Your task to perform on an android device: open app "Chime – Mobile Banking" Image 0: 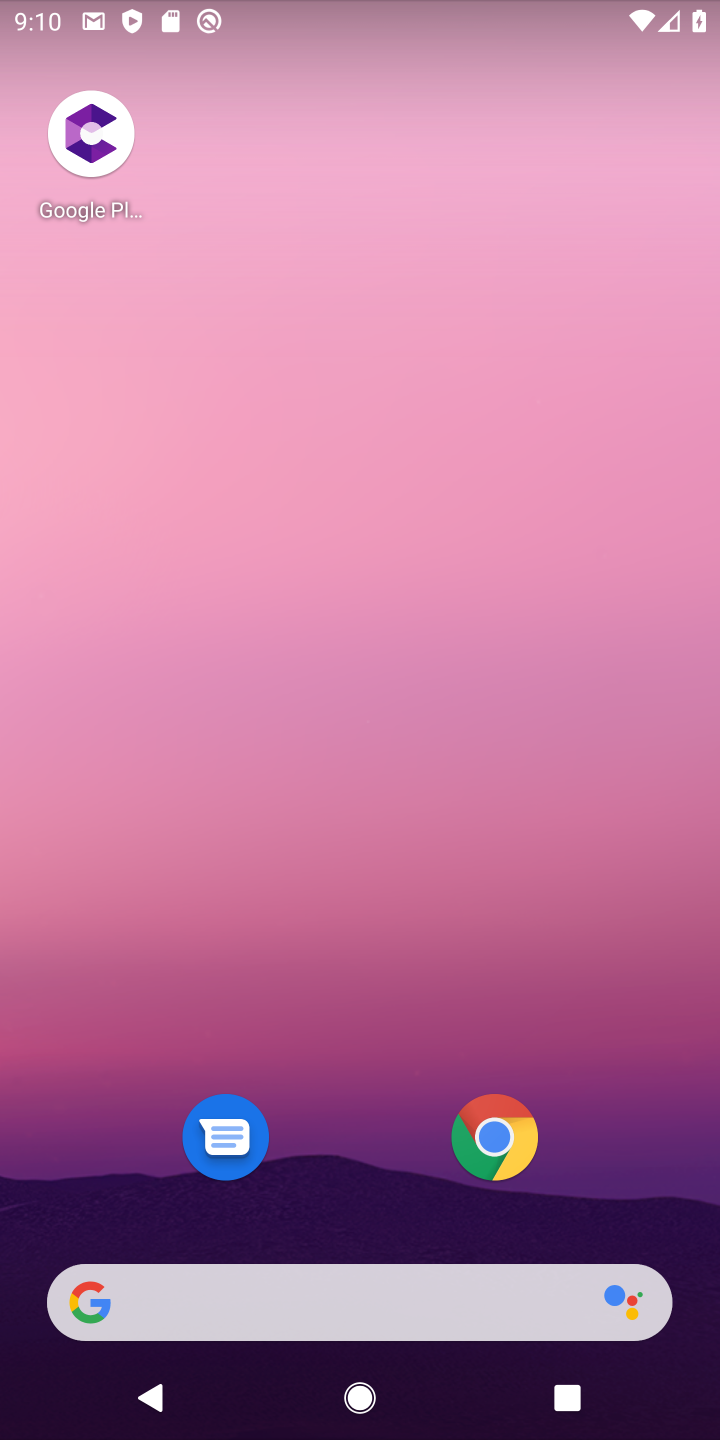
Step 0: drag from (385, 985) to (393, 434)
Your task to perform on an android device: open app "Chime – Mobile Banking" Image 1: 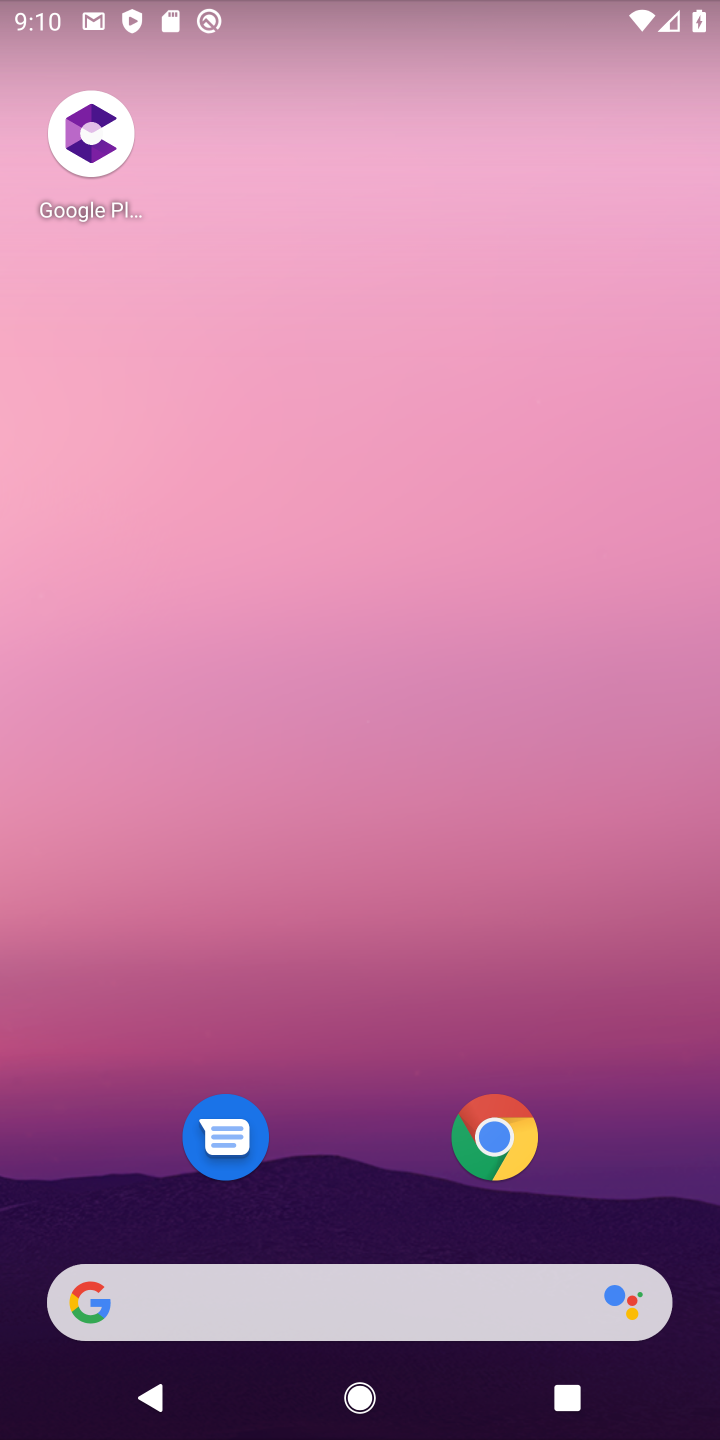
Step 1: drag from (341, 1165) to (417, 208)
Your task to perform on an android device: open app "Chime – Mobile Banking" Image 2: 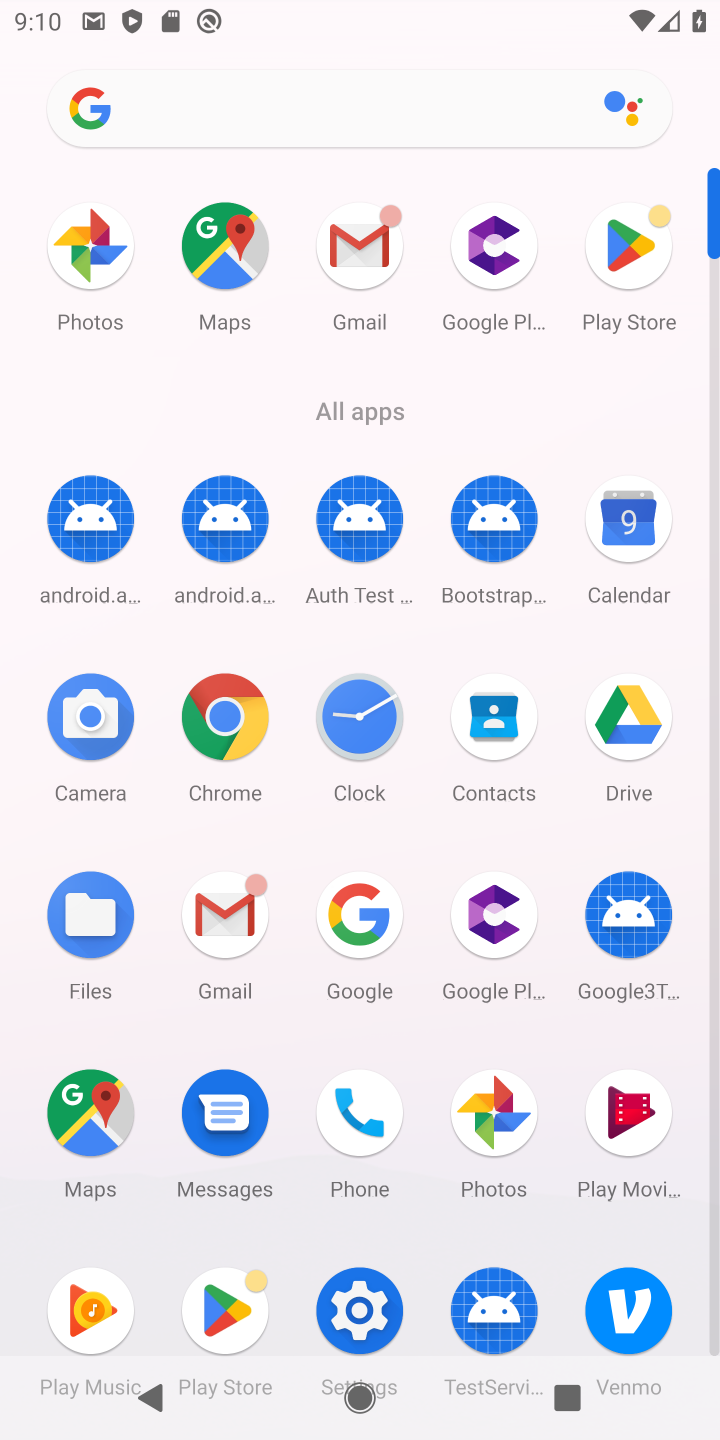
Step 2: click (607, 235)
Your task to perform on an android device: open app "Chime – Mobile Banking" Image 3: 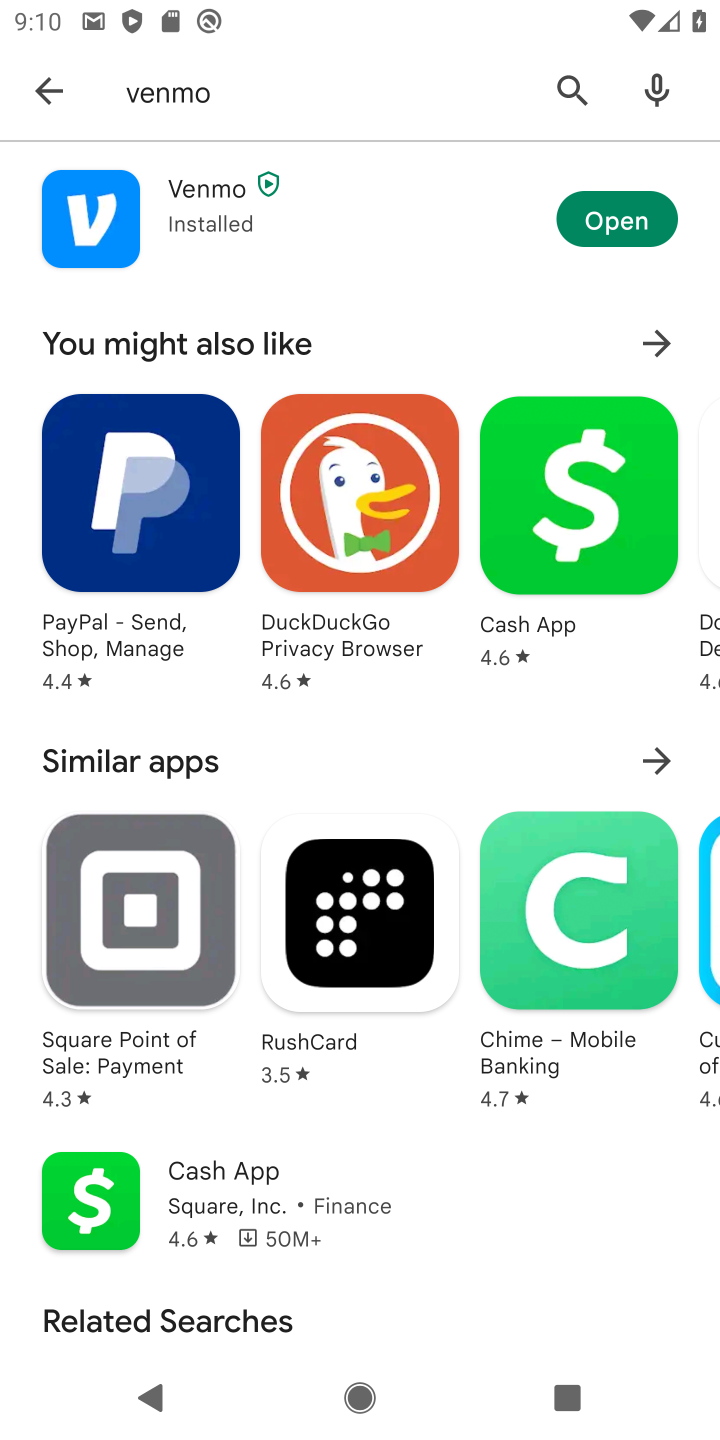
Step 3: click (574, 76)
Your task to perform on an android device: open app "Chime – Mobile Banking" Image 4: 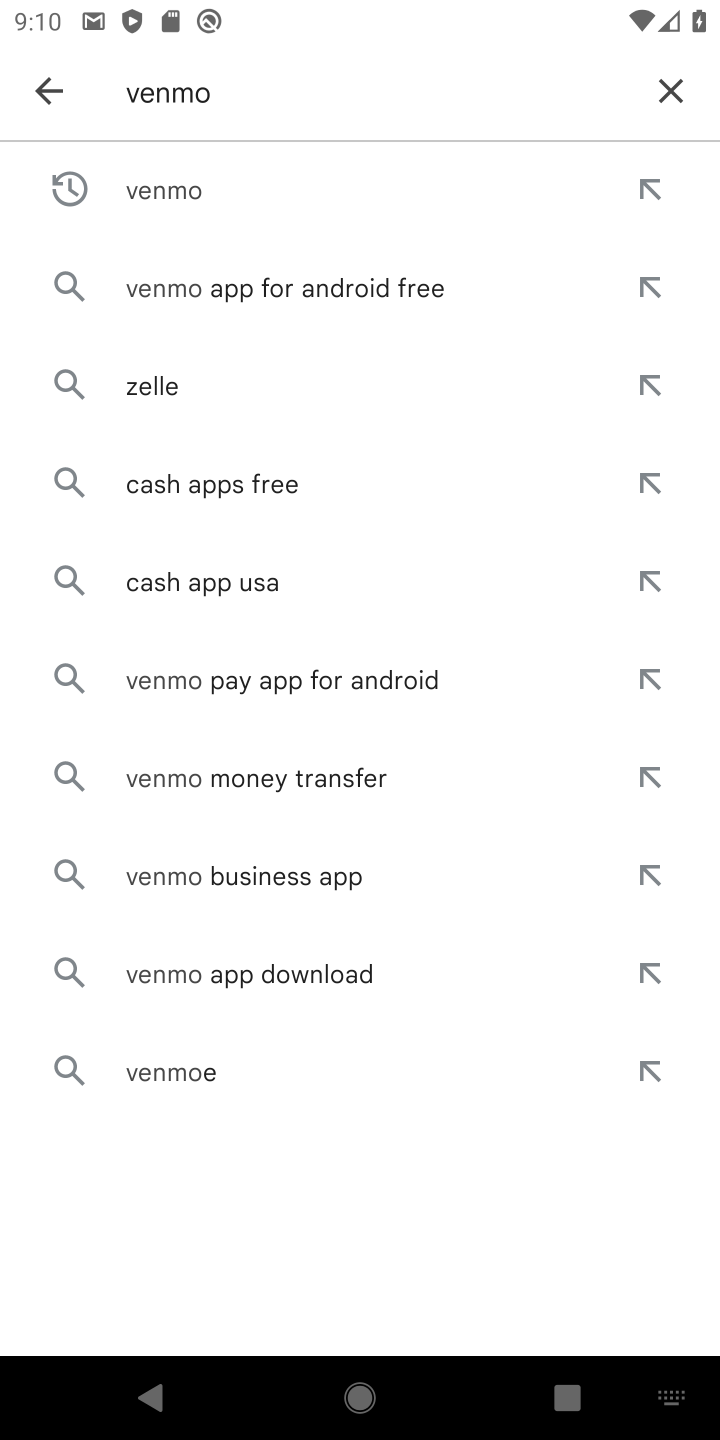
Step 4: click (679, 102)
Your task to perform on an android device: open app "Chime – Mobile Banking" Image 5: 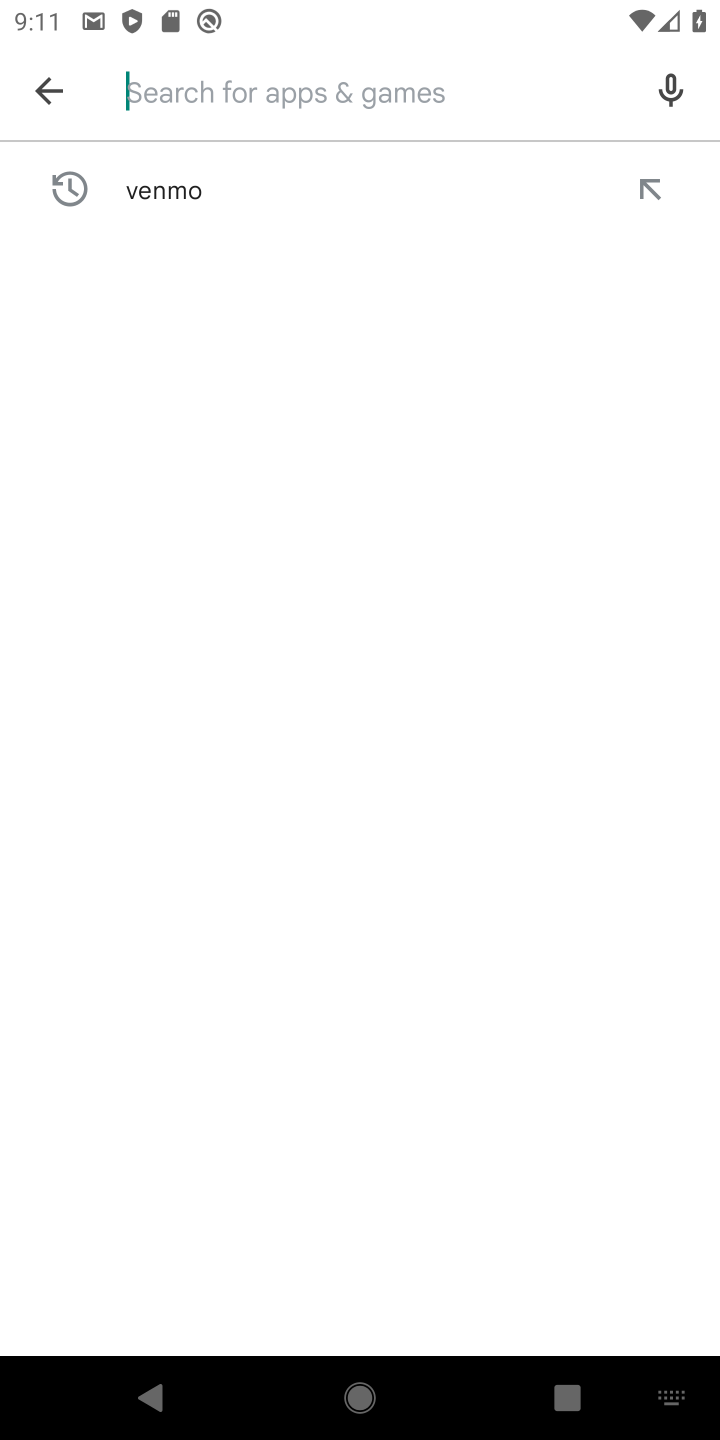
Step 5: type "Chime – Mobile Banking"
Your task to perform on an android device: open app "Chime – Mobile Banking" Image 6: 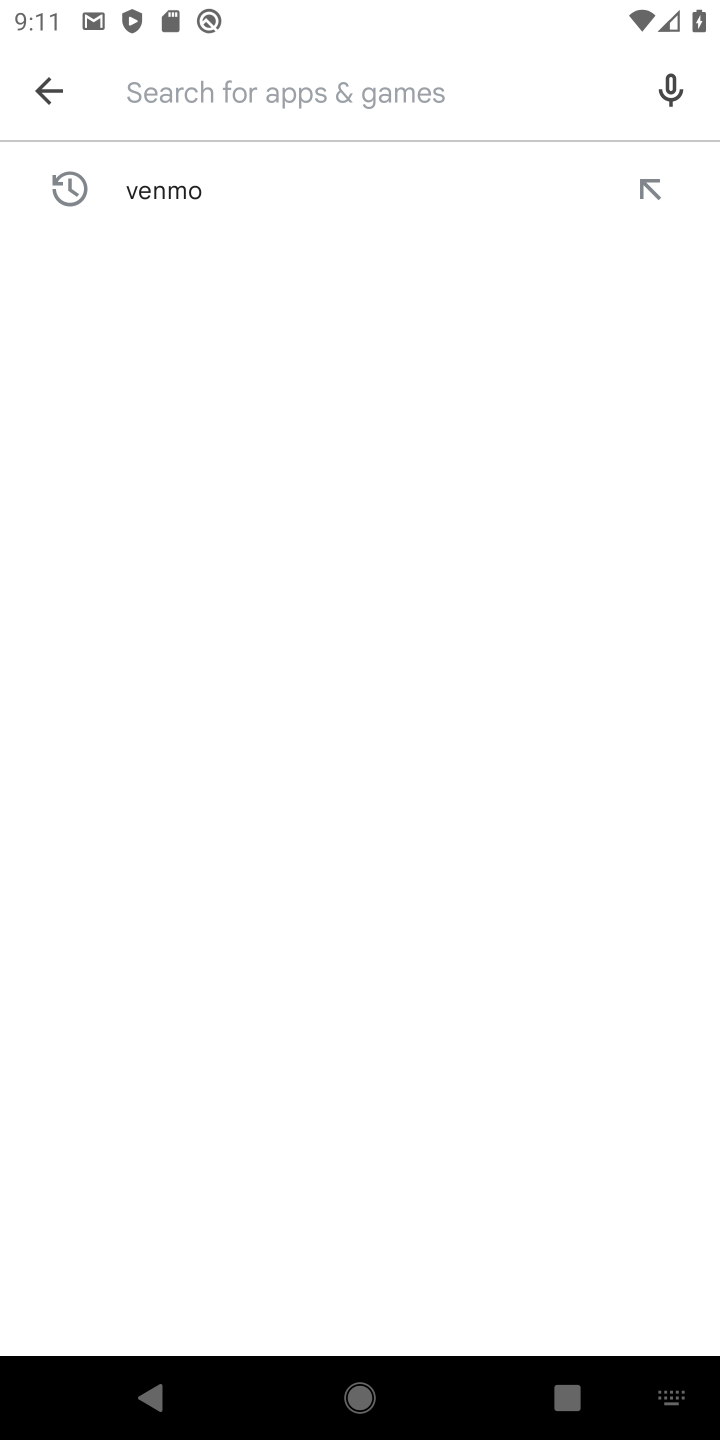
Step 6: type ""
Your task to perform on an android device: open app "Chime – Mobile Banking" Image 7: 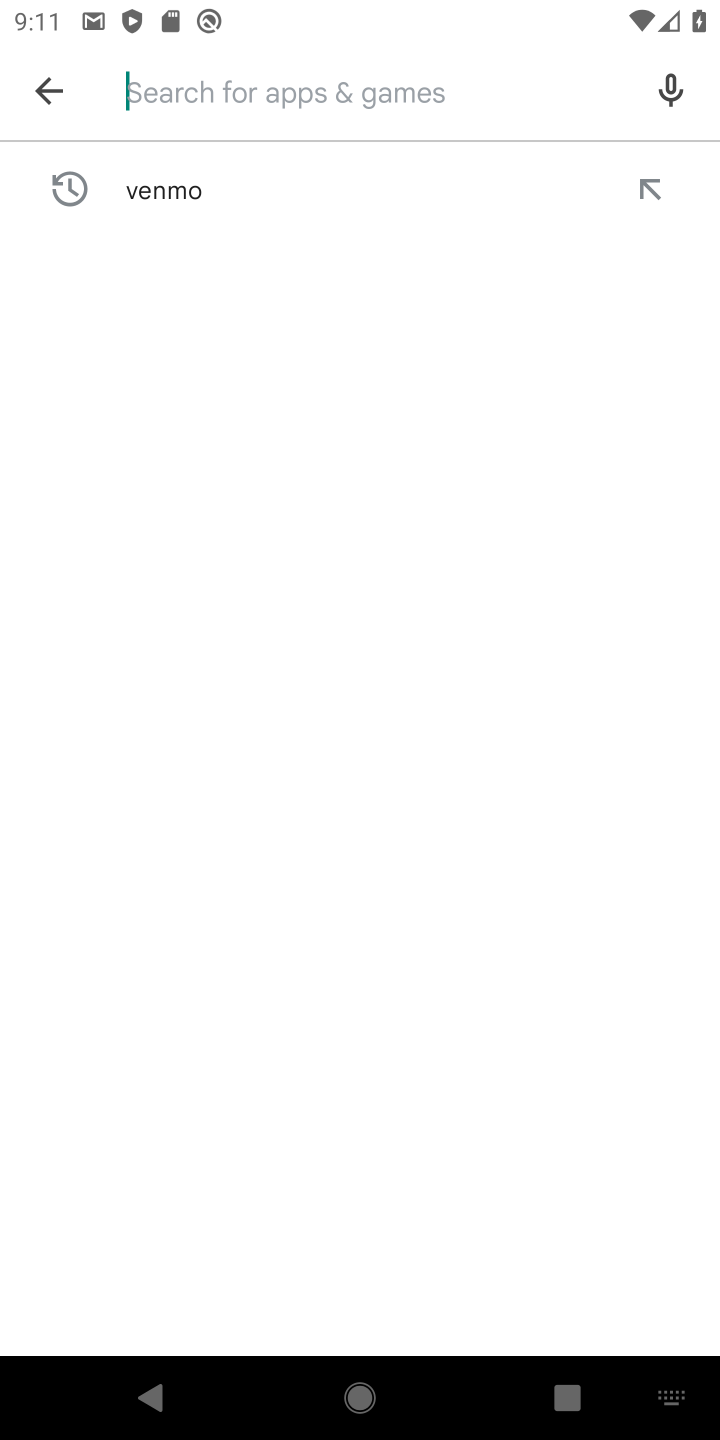
Step 7: type "Chime – Mobile Banking"
Your task to perform on an android device: open app "Chime – Mobile Banking" Image 8: 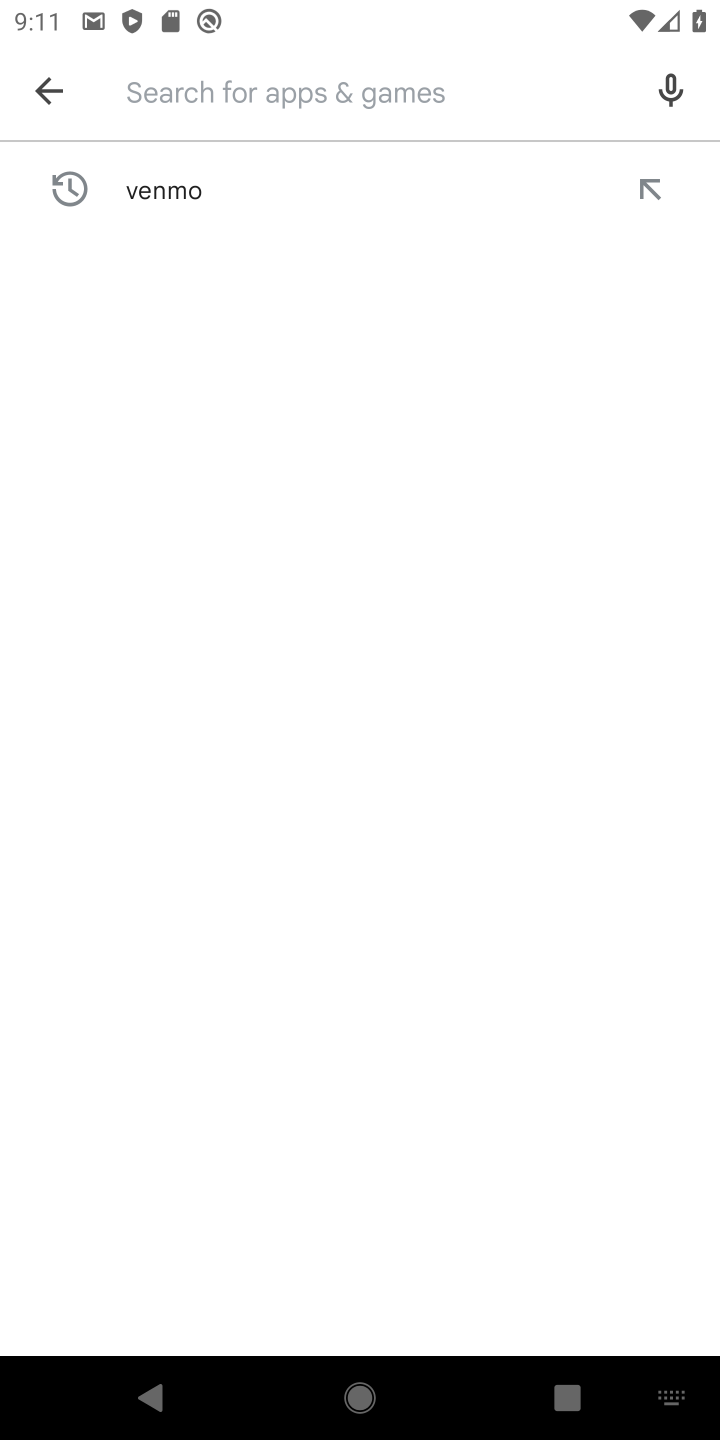
Step 8: type ""
Your task to perform on an android device: open app "Chime – Mobile Banking" Image 9: 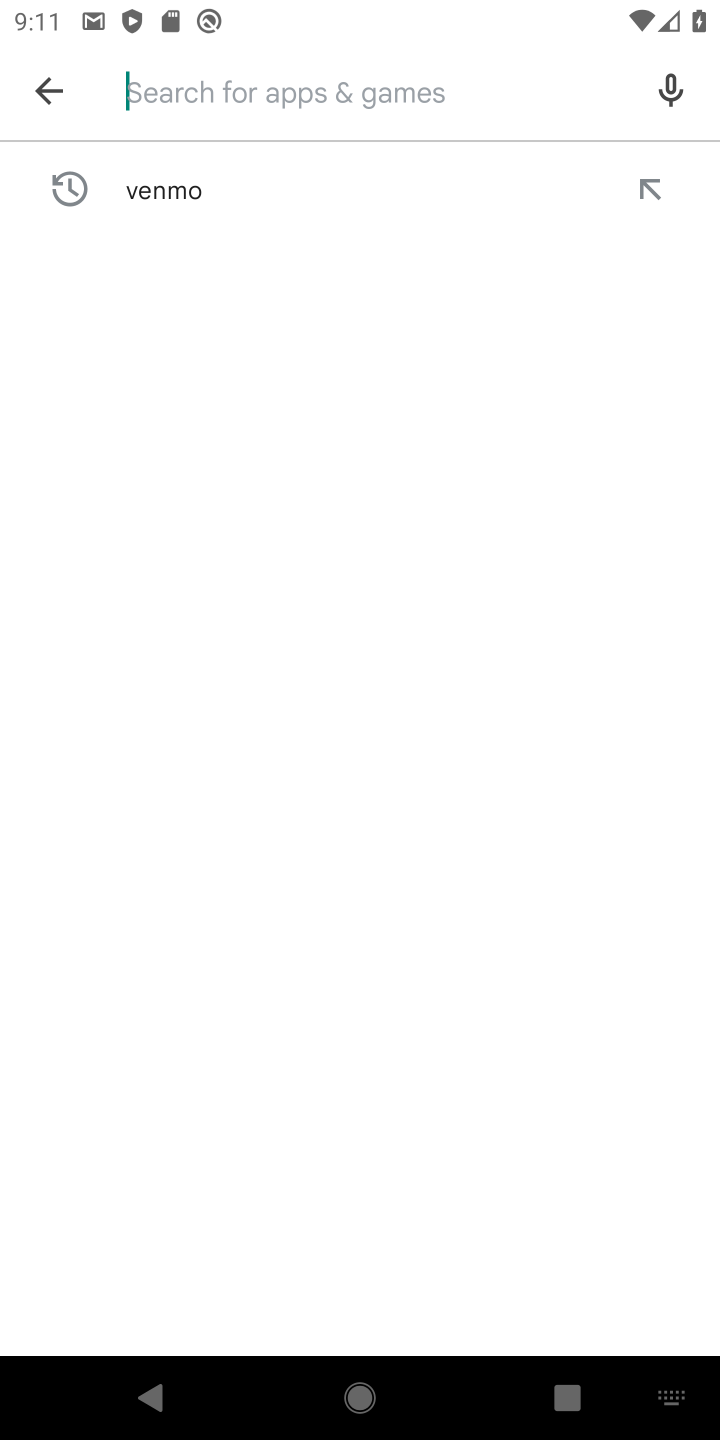
Step 9: press home button
Your task to perform on an android device: open app "Chime – Mobile Banking" Image 10: 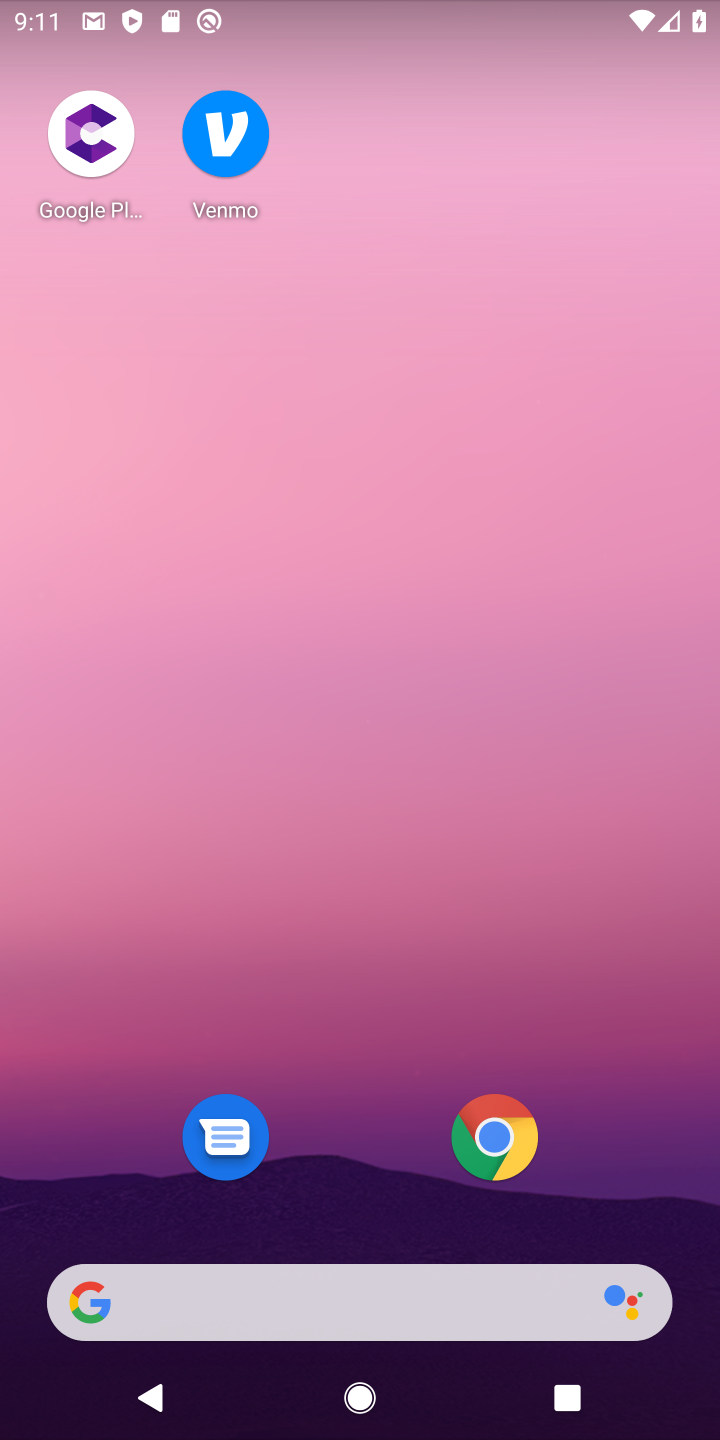
Step 10: drag from (400, 875) to (408, 193)
Your task to perform on an android device: open app "Chime – Mobile Banking" Image 11: 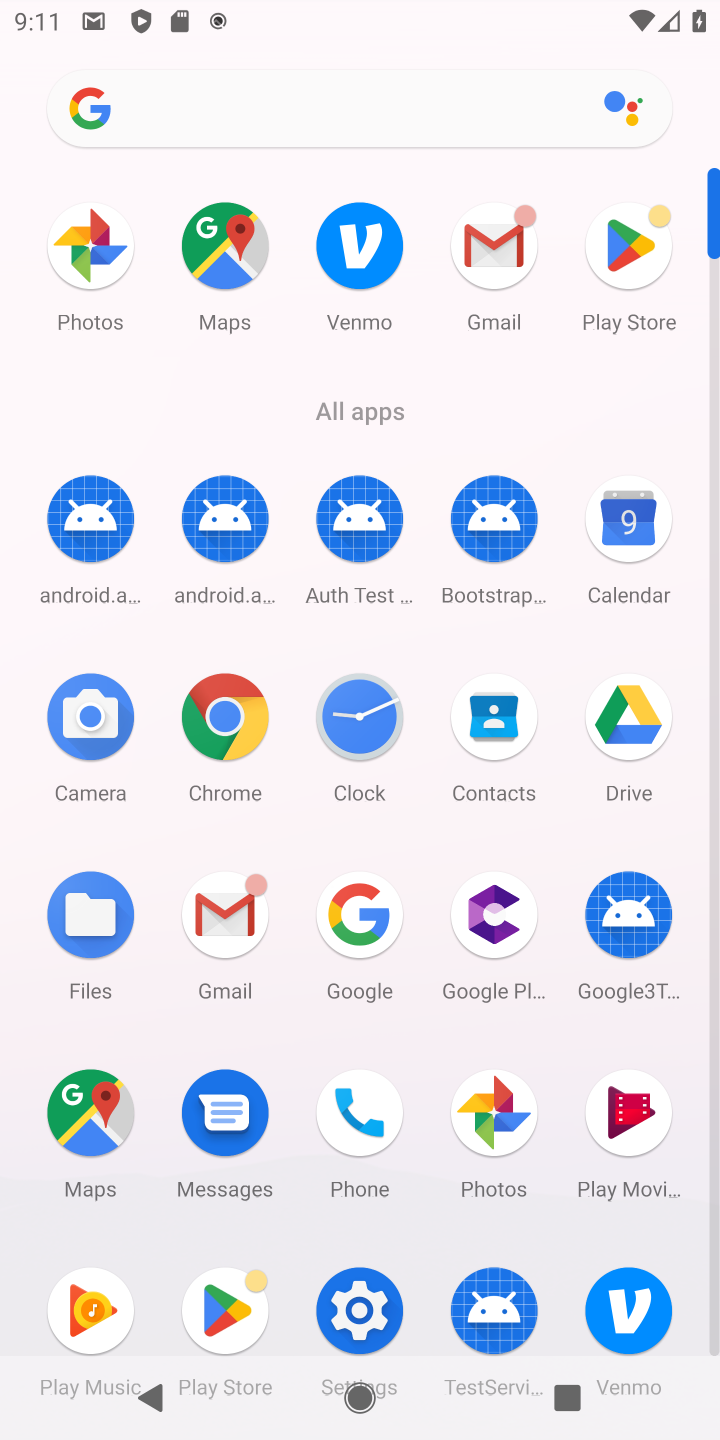
Step 11: click (633, 263)
Your task to perform on an android device: open app "Chime – Mobile Banking" Image 12: 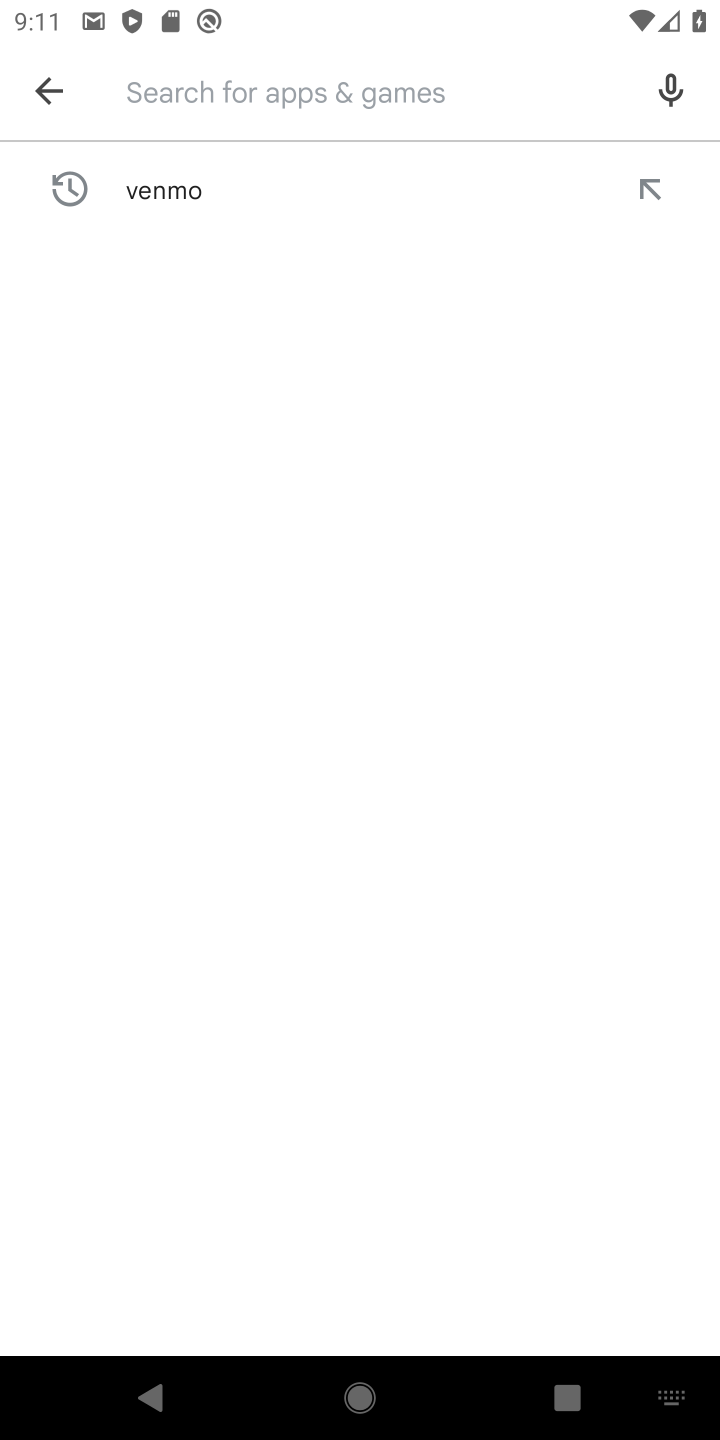
Step 12: click (365, 106)
Your task to perform on an android device: open app "Chime – Mobile Banking" Image 13: 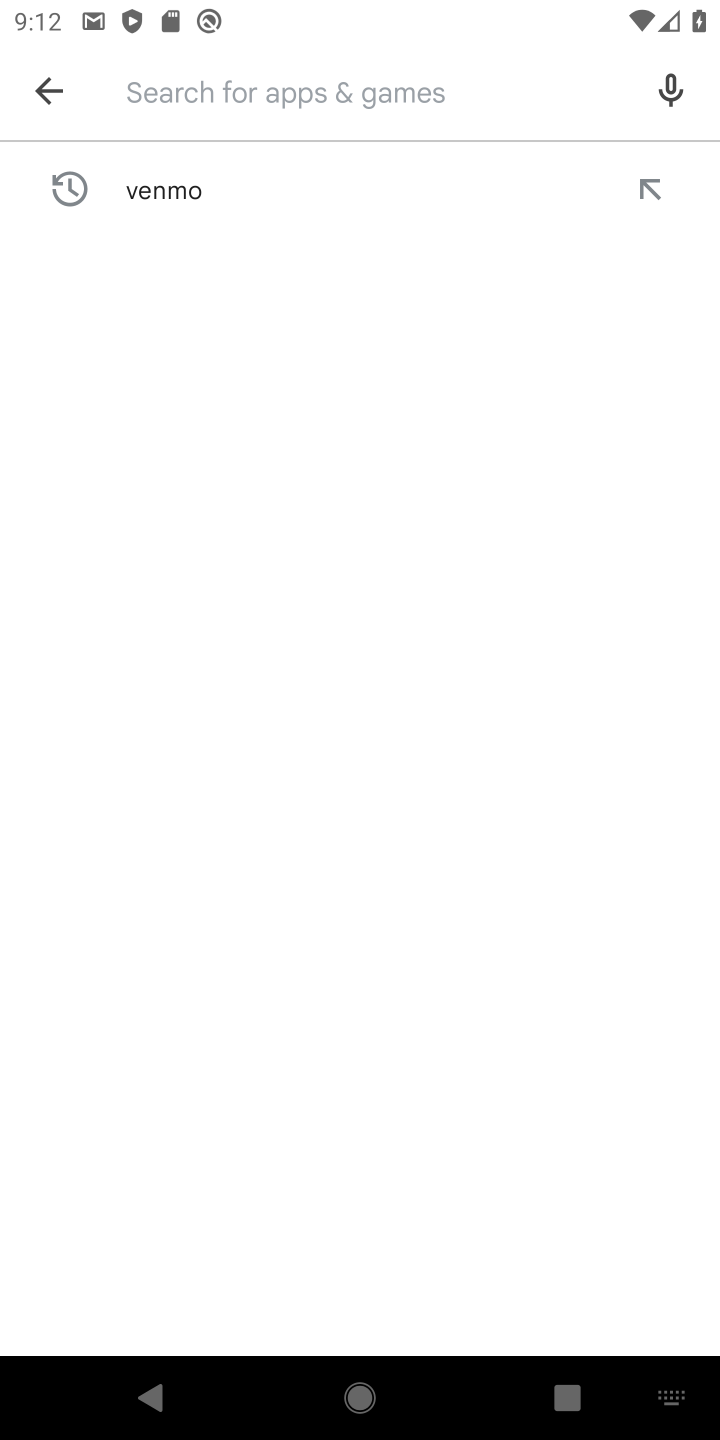
Step 13: type "Chime – Mobile Banking"
Your task to perform on an android device: open app "Chime – Mobile Banking" Image 14: 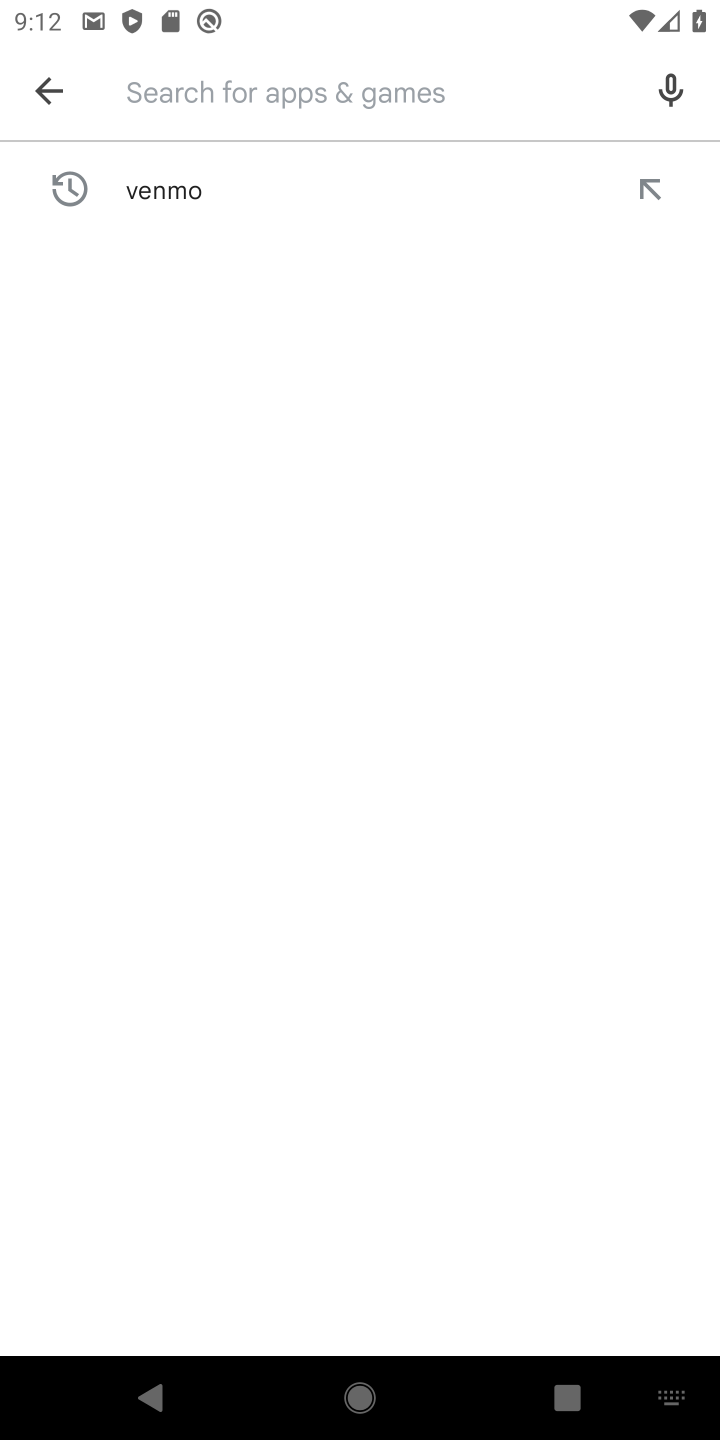
Step 14: click (282, 126)
Your task to perform on an android device: open app "Chime – Mobile Banking" Image 15: 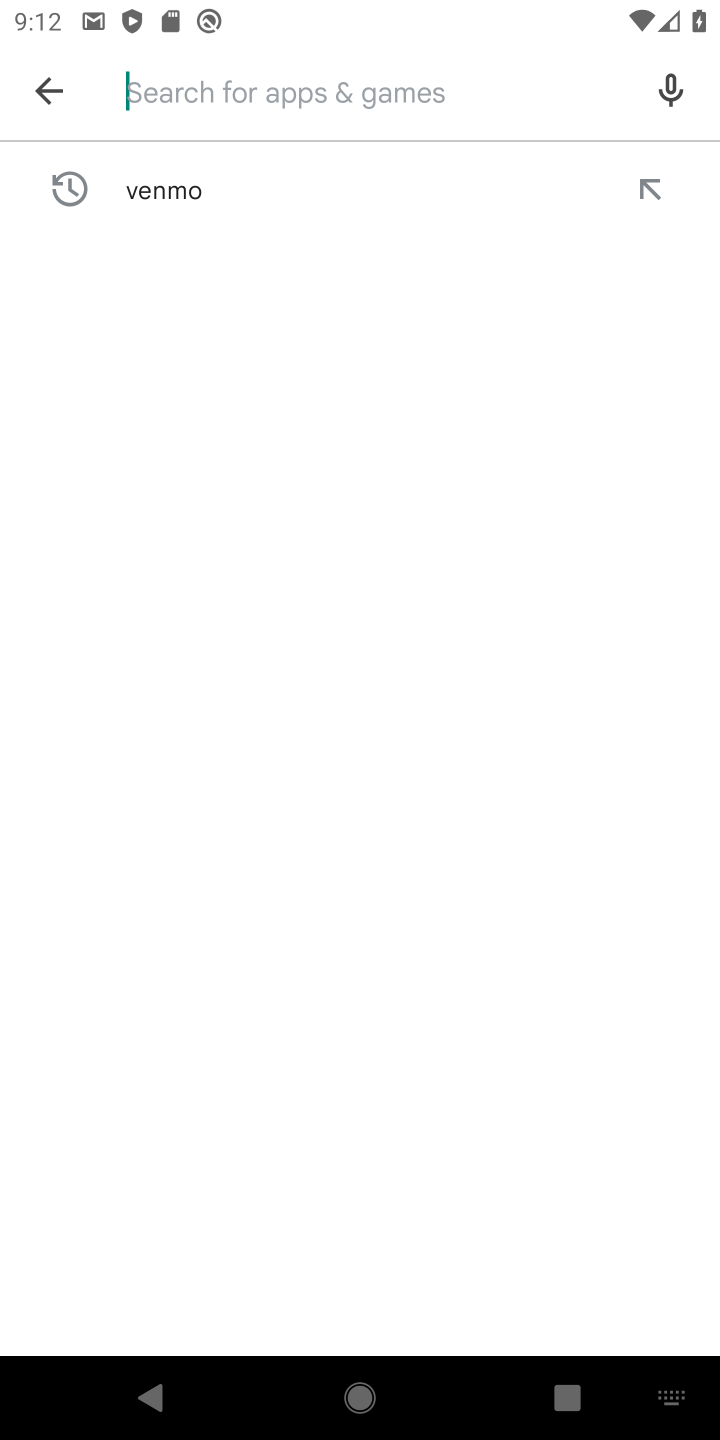
Step 15: click (234, 111)
Your task to perform on an android device: open app "Chime – Mobile Banking" Image 16: 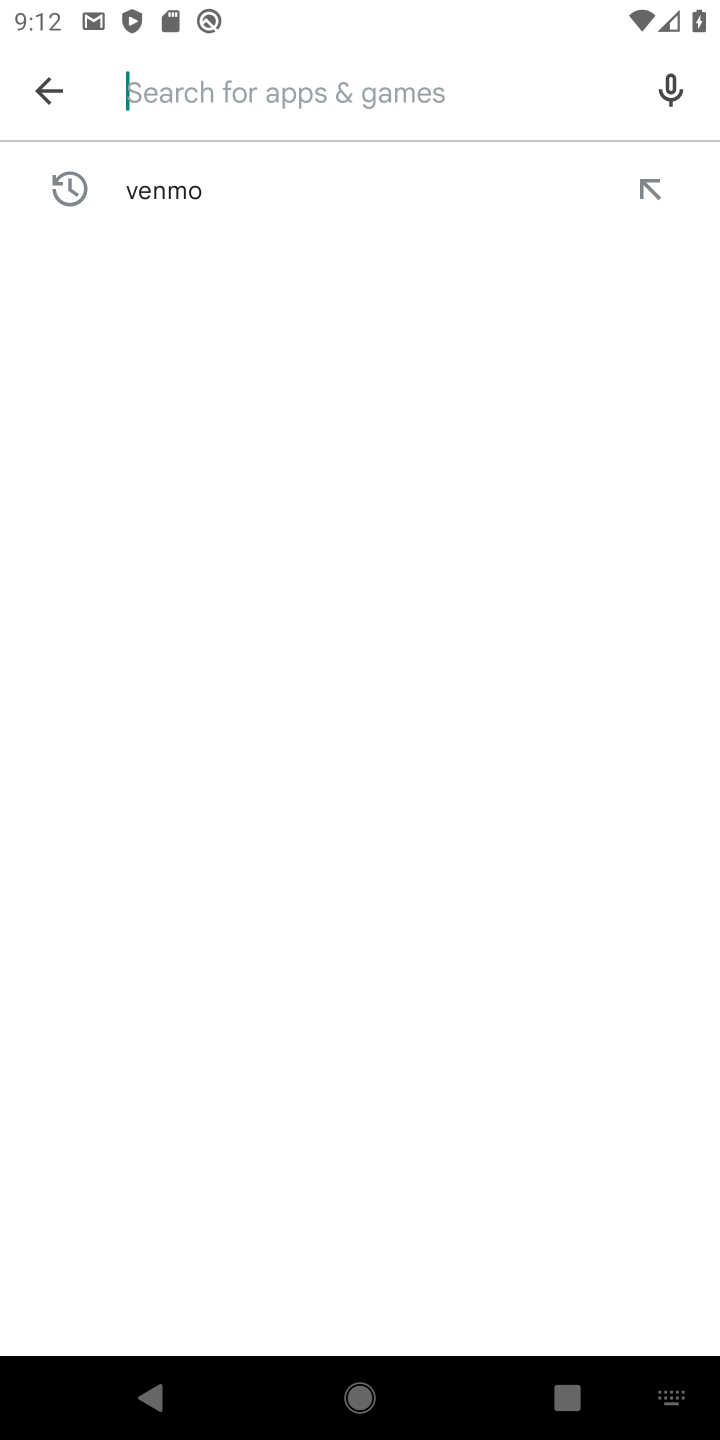
Step 16: type "Chime – Mobile Banking"
Your task to perform on an android device: open app "Chime – Mobile Banking" Image 17: 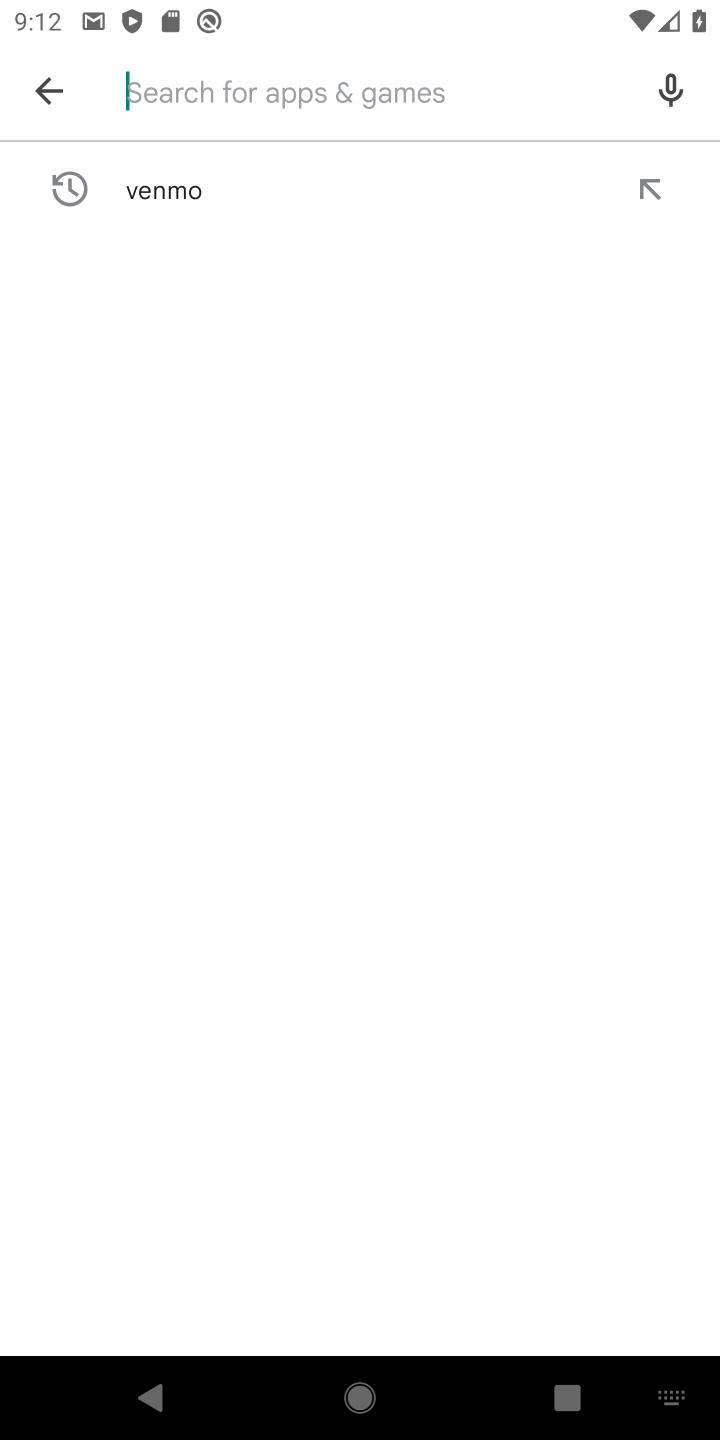
Step 17: type ""
Your task to perform on an android device: open app "Chime – Mobile Banking" Image 18: 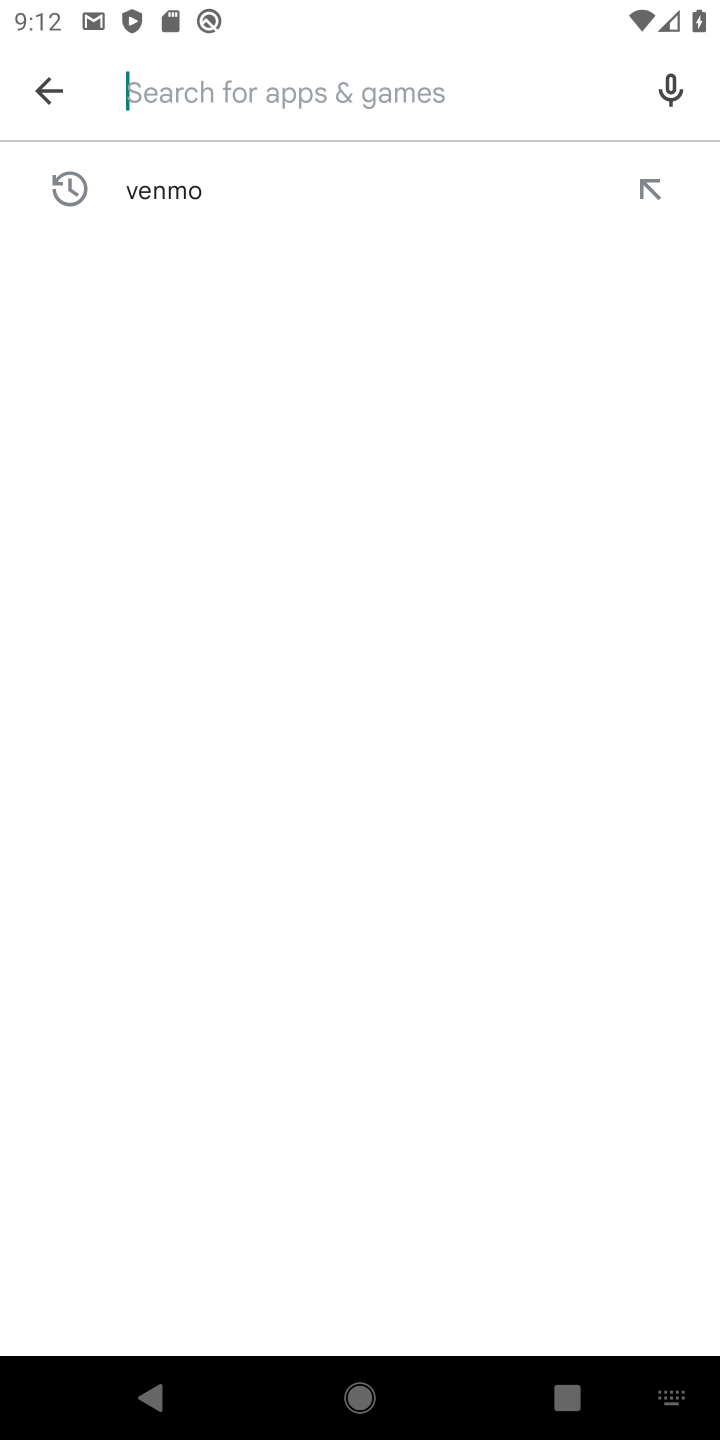
Step 18: click (348, 98)
Your task to perform on an android device: open app "Chime – Mobile Banking" Image 19: 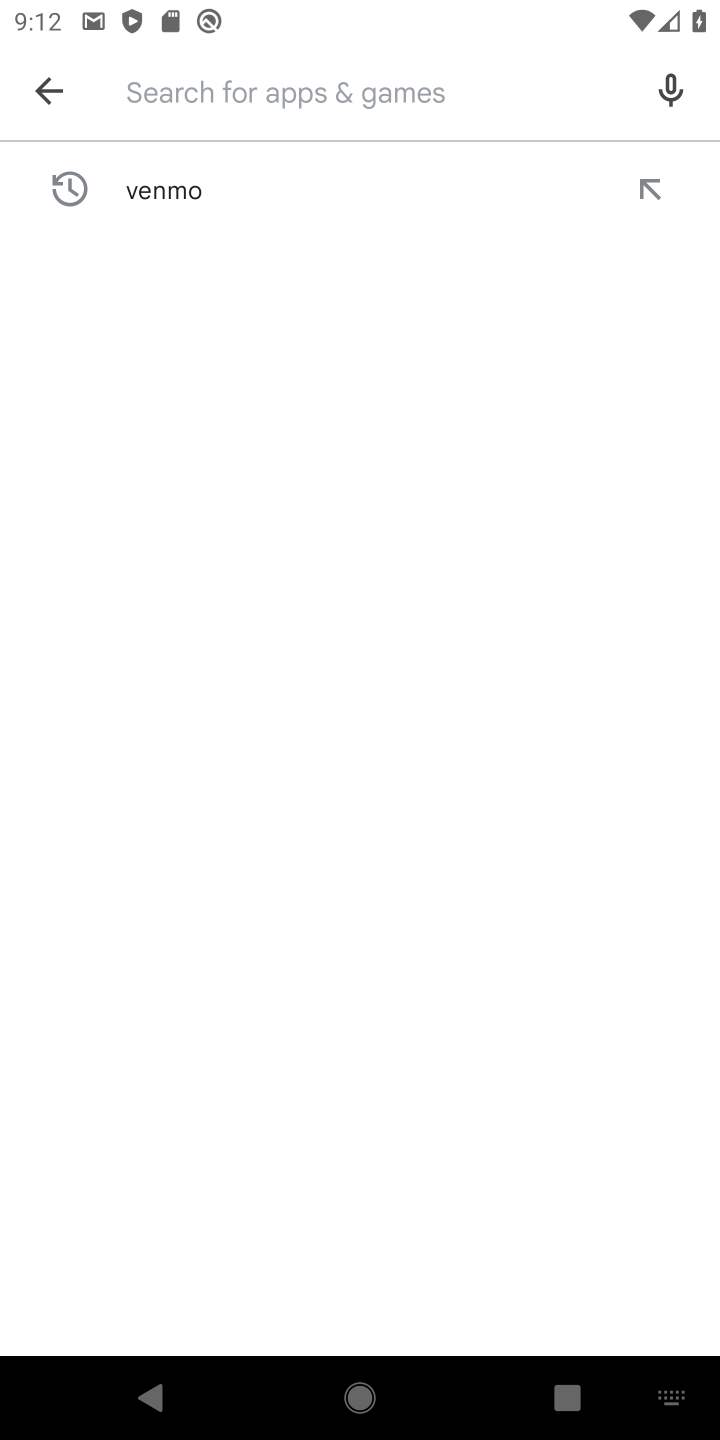
Step 19: type "Chime – Mobile Banking"
Your task to perform on an android device: open app "Chime – Mobile Banking" Image 20: 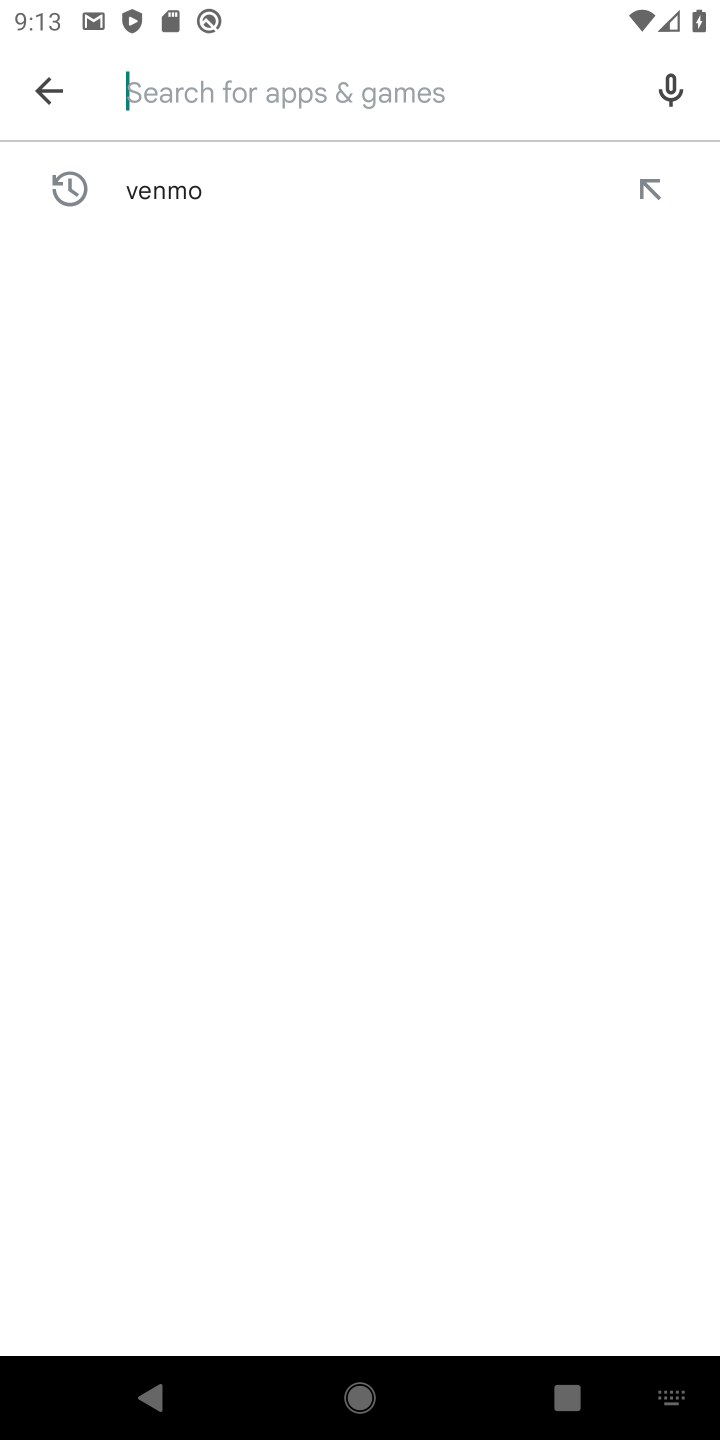
Step 20: click (247, 93)
Your task to perform on an android device: open app "Chime – Mobile Banking" Image 21: 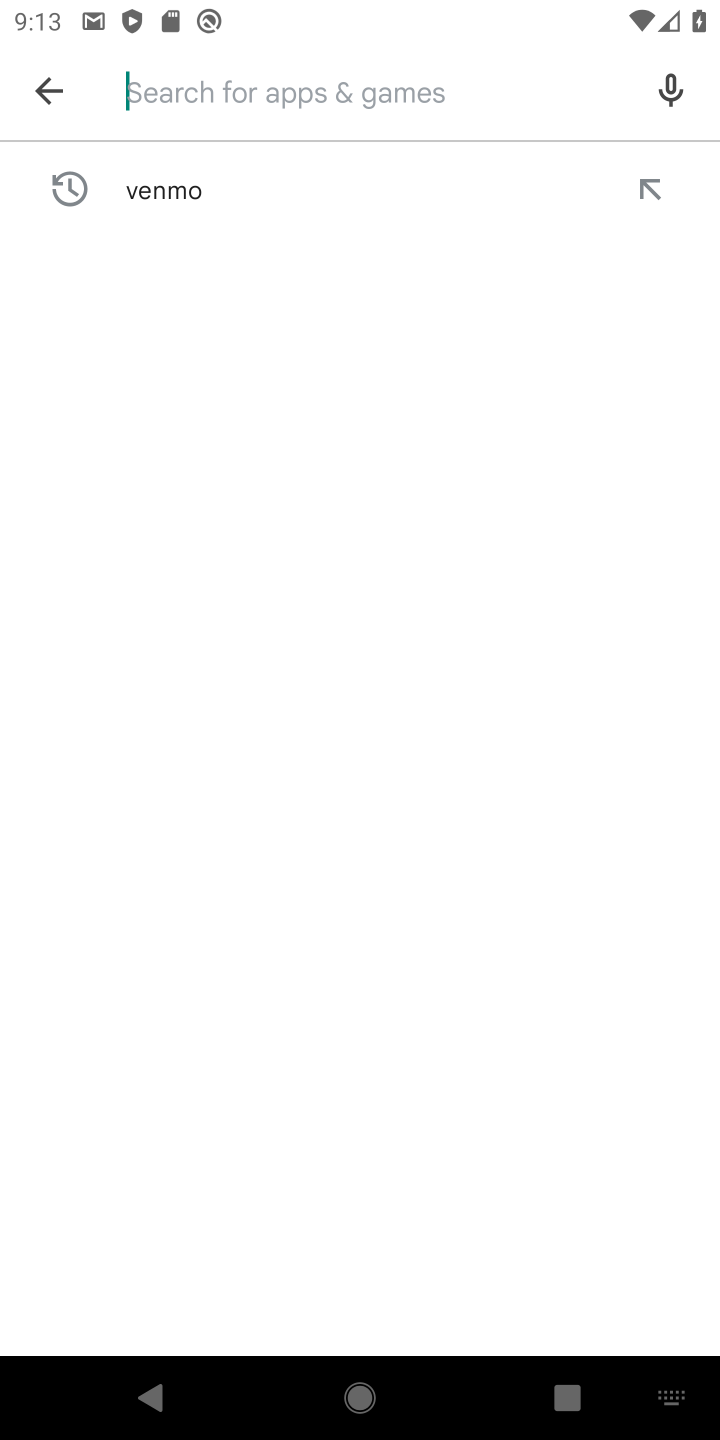
Step 21: type "Chime – Mobile Banking"
Your task to perform on an android device: open app "Chime – Mobile Banking" Image 22: 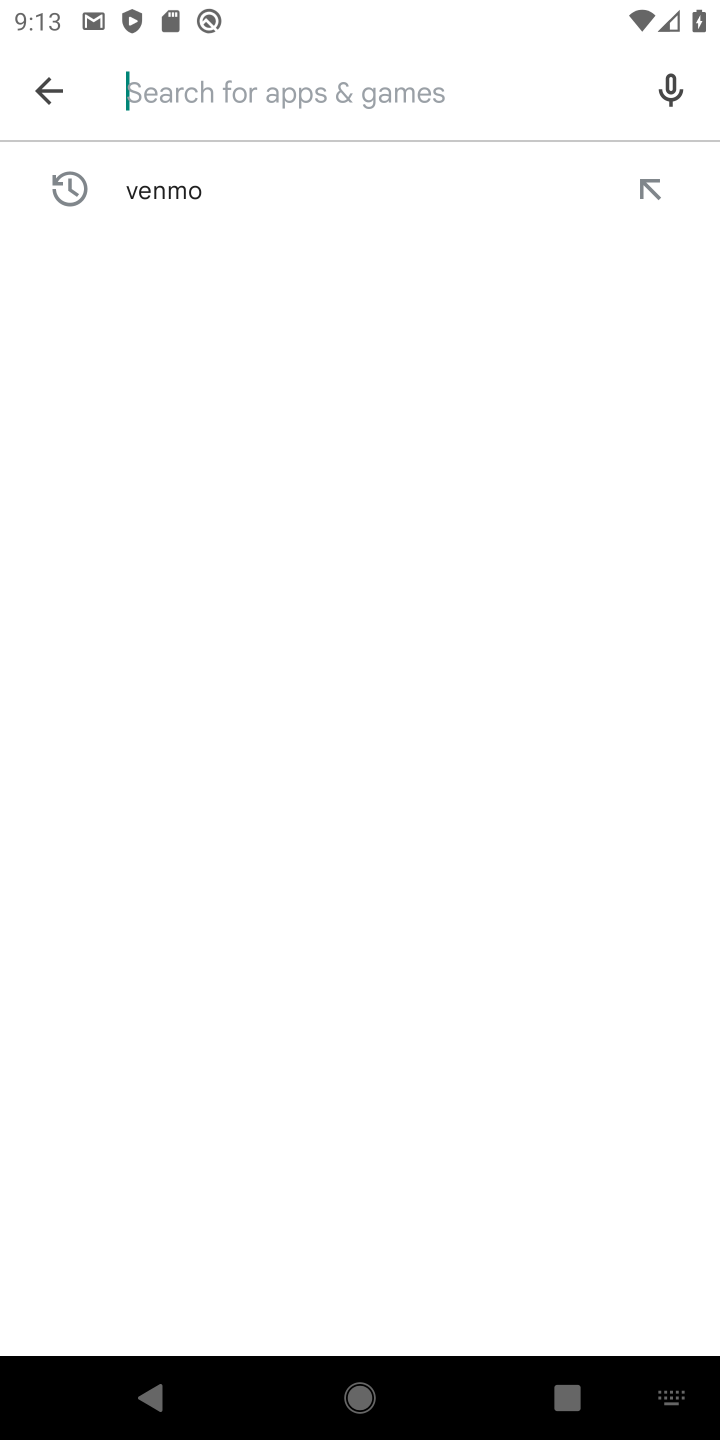
Step 22: type ""
Your task to perform on an android device: open app "Chime – Mobile Banking" Image 23: 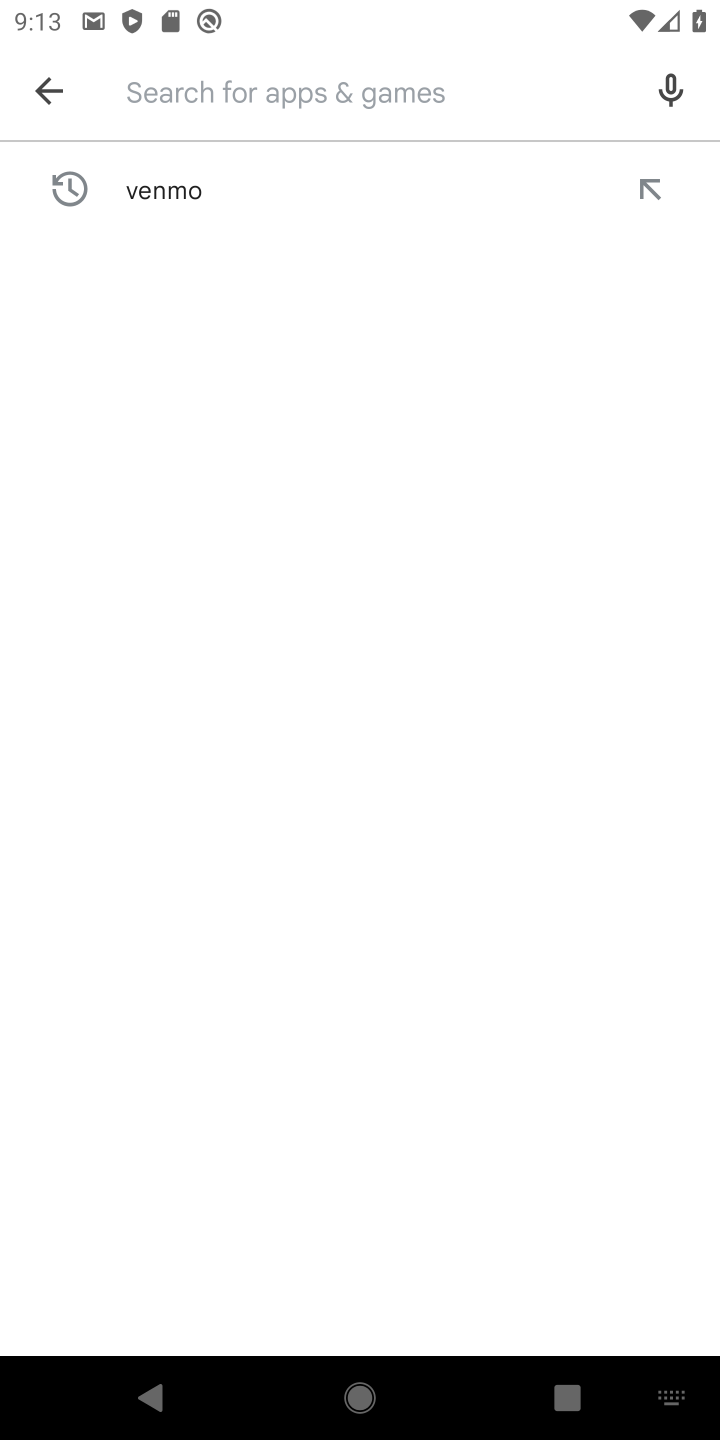
Step 23: task complete